Your task to perform on an android device: Go to Google maps Image 0: 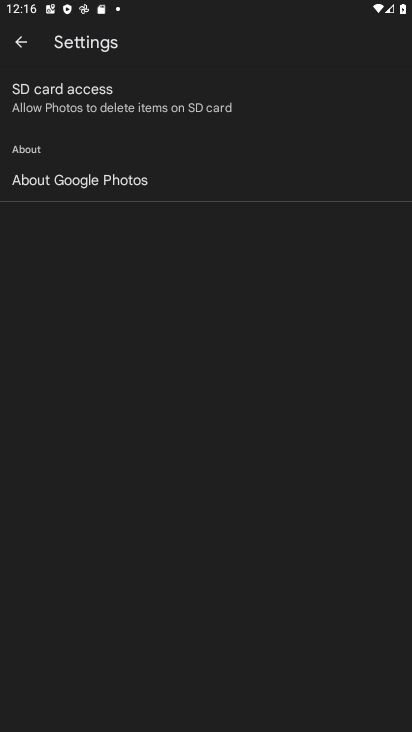
Step 0: press home button
Your task to perform on an android device: Go to Google maps Image 1: 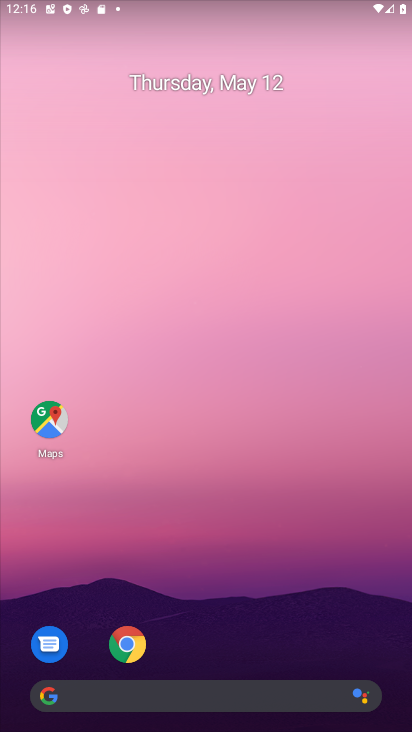
Step 1: drag from (227, 624) to (260, 396)
Your task to perform on an android device: Go to Google maps Image 2: 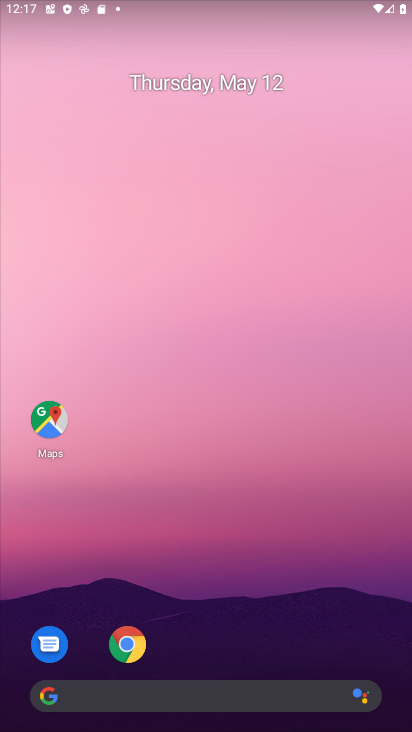
Step 2: click (39, 433)
Your task to perform on an android device: Go to Google maps Image 3: 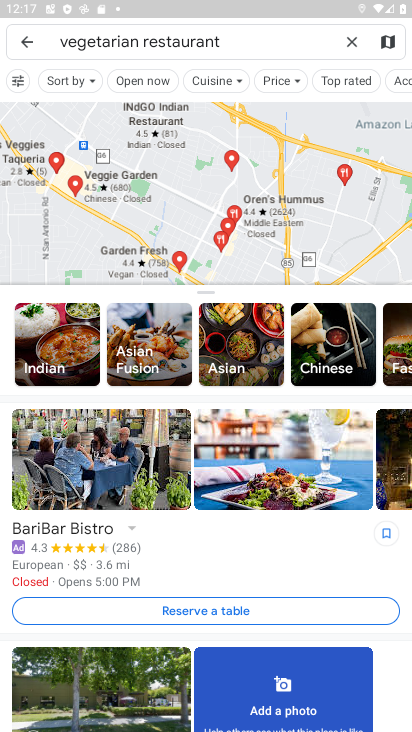
Step 3: task complete